Your task to perform on an android device: Open Wikipedia Image 0: 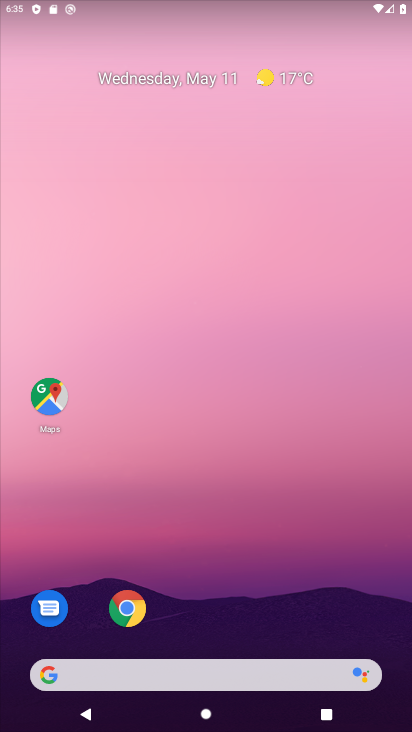
Step 0: click (144, 606)
Your task to perform on an android device: Open Wikipedia Image 1: 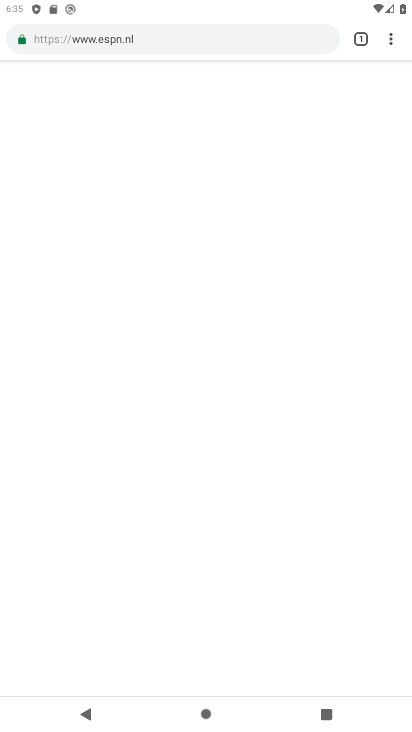
Step 1: click (250, 46)
Your task to perform on an android device: Open Wikipedia Image 2: 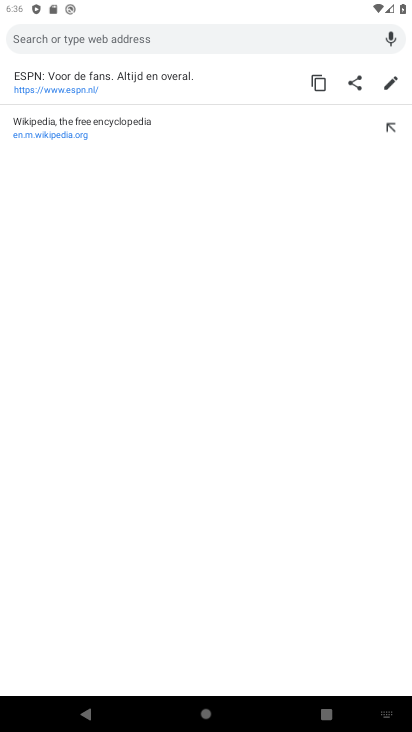
Step 2: type "wikipedia"
Your task to perform on an android device: Open Wikipedia Image 3: 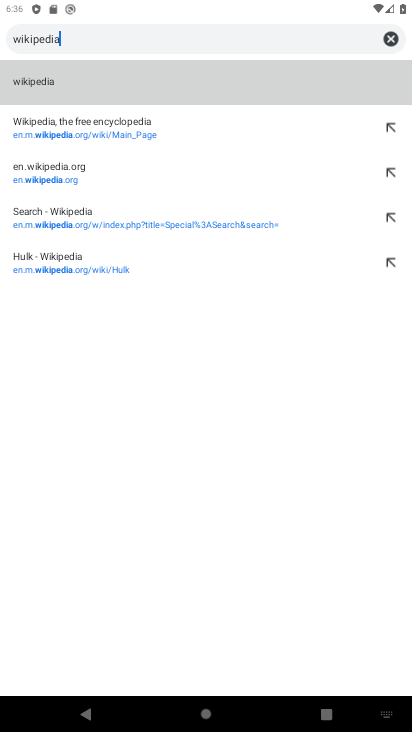
Step 3: click (91, 140)
Your task to perform on an android device: Open Wikipedia Image 4: 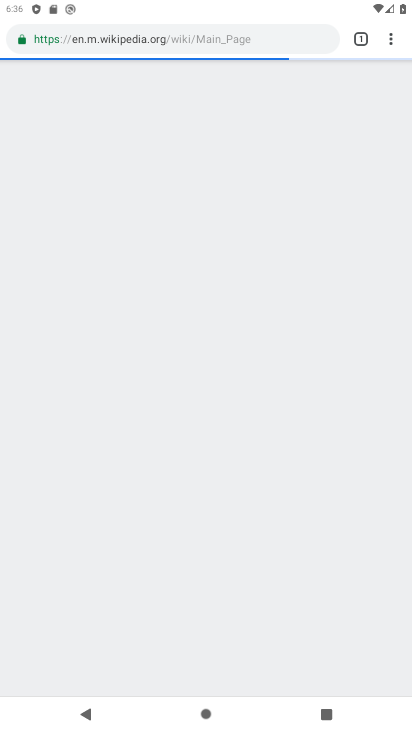
Step 4: task complete